Your task to perform on an android device: turn on improve location accuracy Image 0: 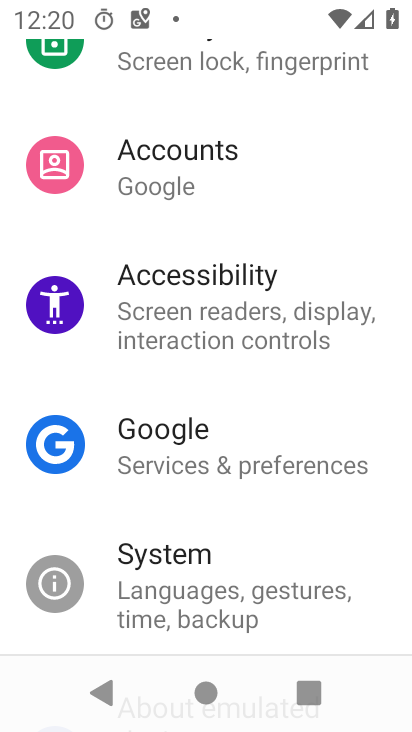
Step 0: press home button
Your task to perform on an android device: turn on improve location accuracy Image 1: 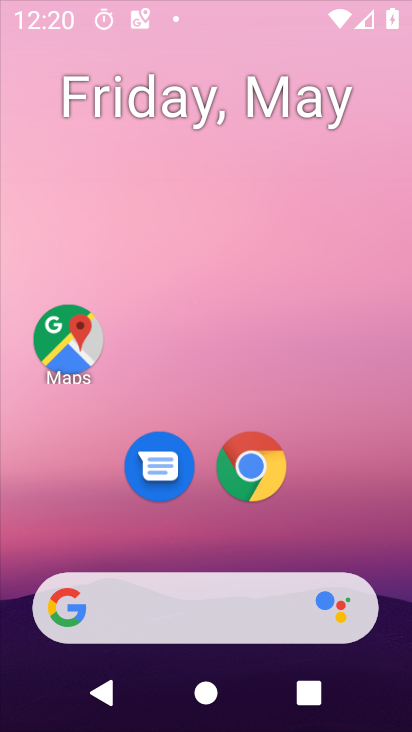
Step 1: drag from (381, 641) to (239, 28)
Your task to perform on an android device: turn on improve location accuracy Image 2: 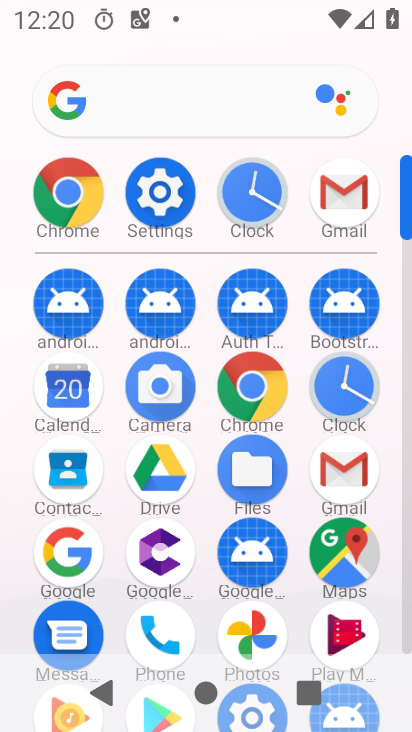
Step 2: click (177, 184)
Your task to perform on an android device: turn on improve location accuracy Image 3: 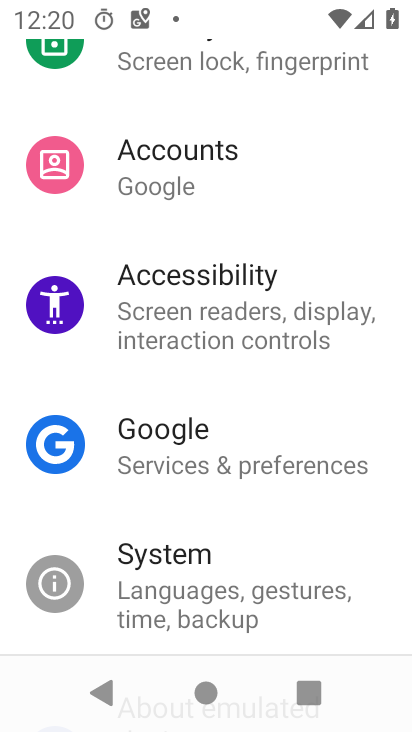
Step 3: drag from (294, 221) to (238, 640)
Your task to perform on an android device: turn on improve location accuracy Image 4: 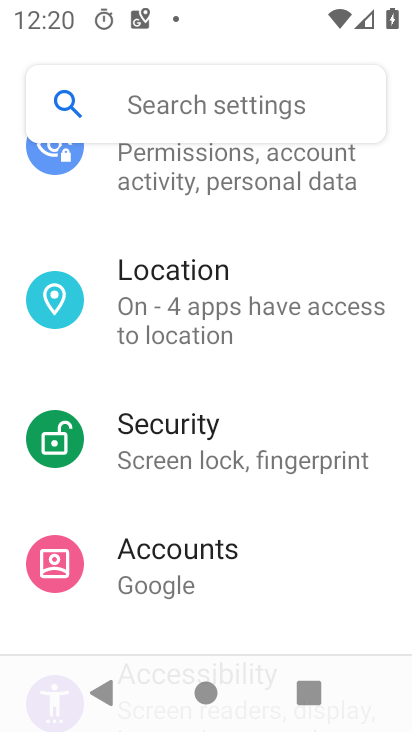
Step 4: click (174, 337)
Your task to perform on an android device: turn on improve location accuracy Image 5: 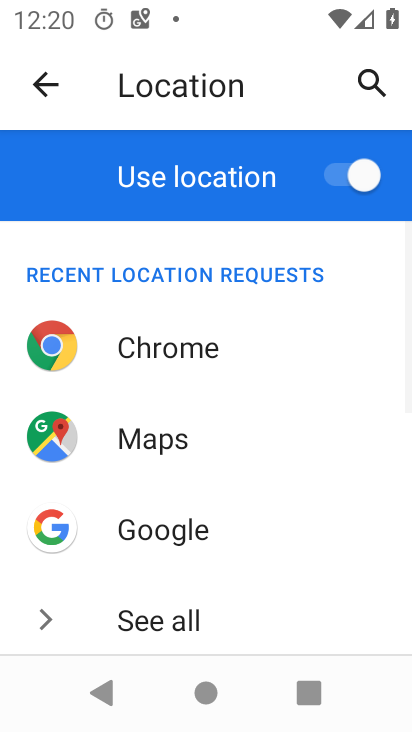
Step 5: drag from (182, 610) to (230, 110)
Your task to perform on an android device: turn on improve location accuracy Image 6: 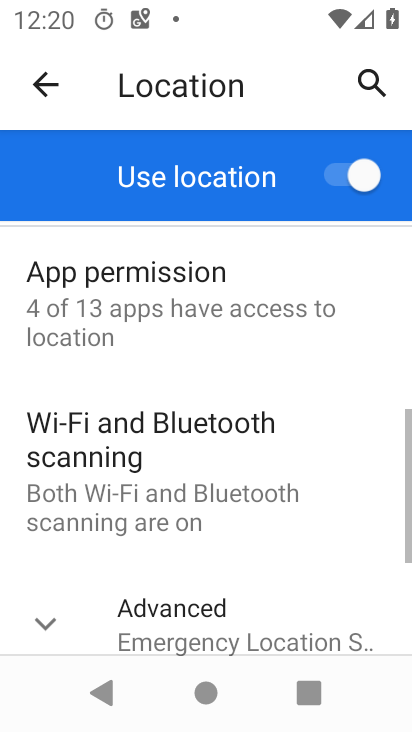
Step 6: click (77, 580)
Your task to perform on an android device: turn on improve location accuracy Image 7: 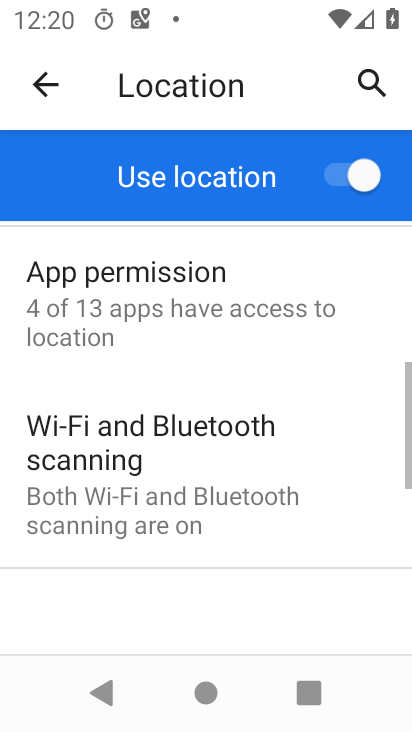
Step 7: drag from (160, 620) to (273, 196)
Your task to perform on an android device: turn on improve location accuracy Image 8: 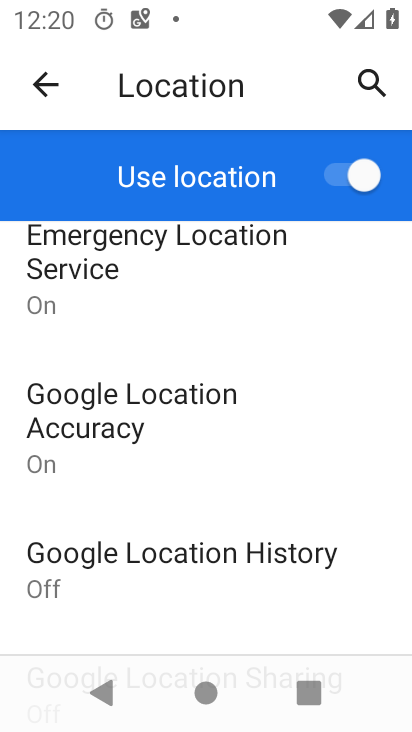
Step 8: click (94, 411)
Your task to perform on an android device: turn on improve location accuracy Image 9: 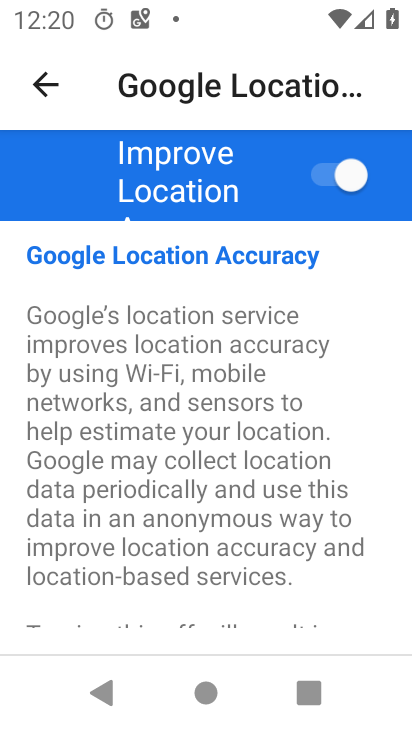
Step 9: task complete